Your task to perform on an android device: open sync settings in chrome Image 0: 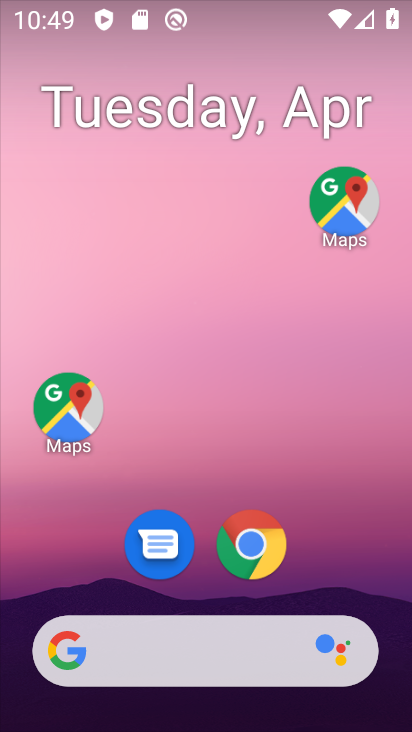
Step 0: click (242, 537)
Your task to perform on an android device: open sync settings in chrome Image 1: 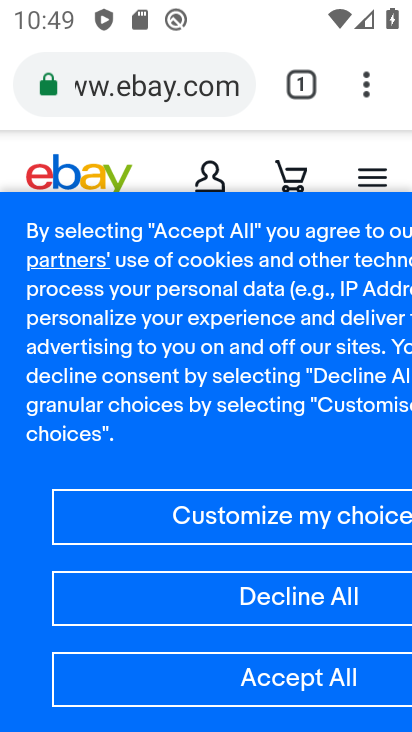
Step 1: drag from (372, 84) to (218, 609)
Your task to perform on an android device: open sync settings in chrome Image 2: 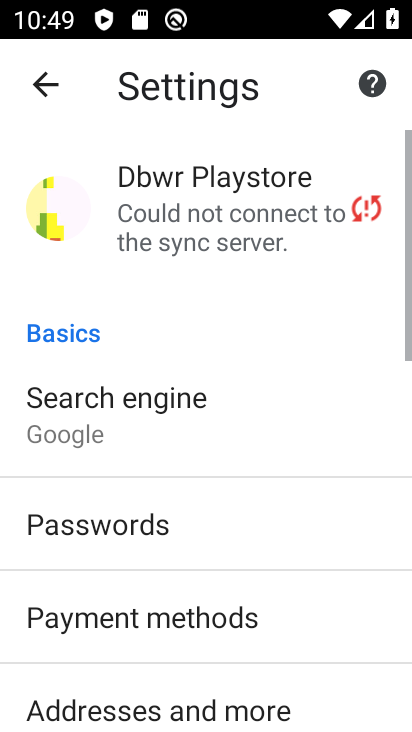
Step 2: drag from (197, 618) to (190, 168)
Your task to perform on an android device: open sync settings in chrome Image 3: 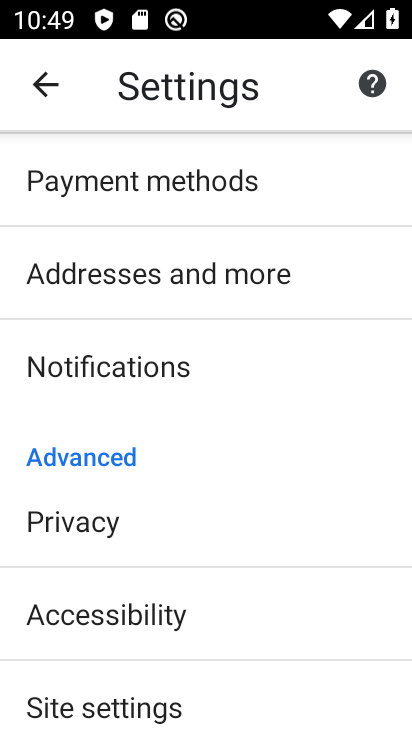
Step 3: drag from (136, 687) to (156, 460)
Your task to perform on an android device: open sync settings in chrome Image 4: 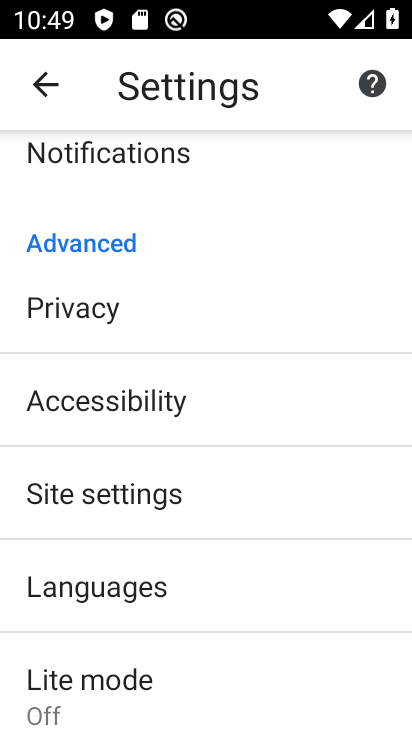
Step 4: click (123, 505)
Your task to perform on an android device: open sync settings in chrome Image 5: 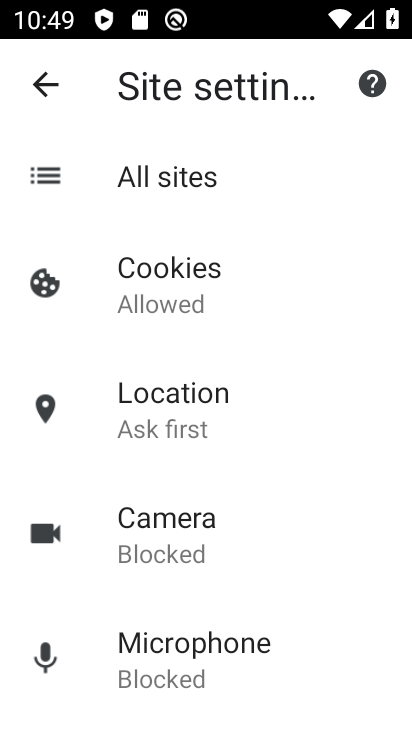
Step 5: drag from (248, 266) to (250, 222)
Your task to perform on an android device: open sync settings in chrome Image 6: 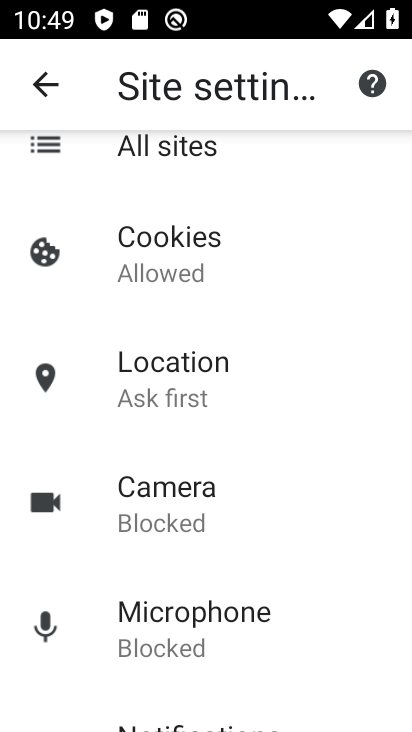
Step 6: drag from (188, 670) to (243, 211)
Your task to perform on an android device: open sync settings in chrome Image 7: 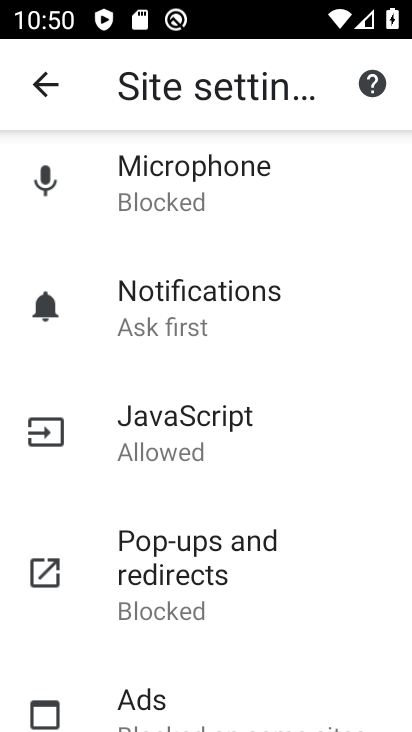
Step 7: drag from (205, 703) to (261, 240)
Your task to perform on an android device: open sync settings in chrome Image 8: 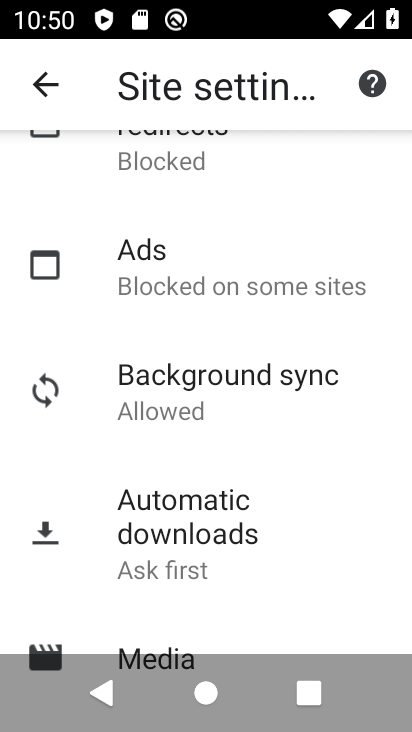
Step 8: click (237, 382)
Your task to perform on an android device: open sync settings in chrome Image 9: 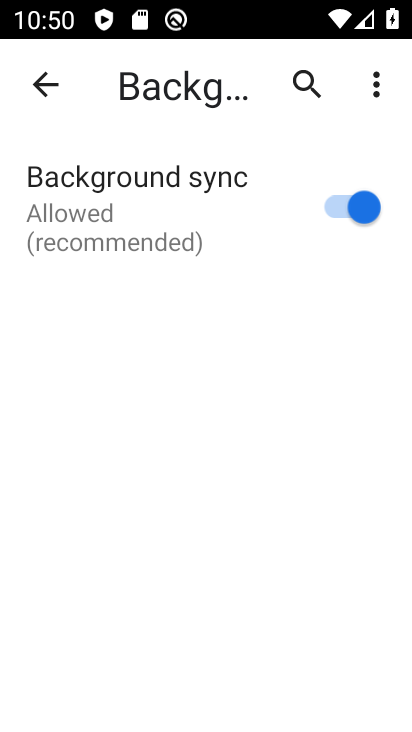
Step 9: task complete